Your task to perform on an android device: Open Chrome and go to the settings page Image 0: 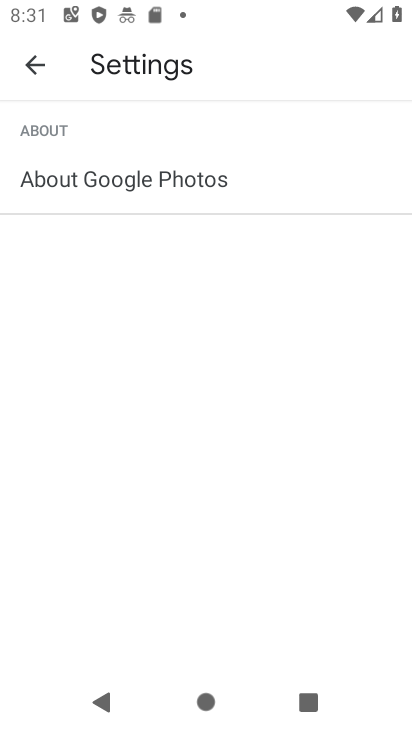
Step 0: press home button
Your task to perform on an android device: Open Chrome and go to the settings page Image 1: 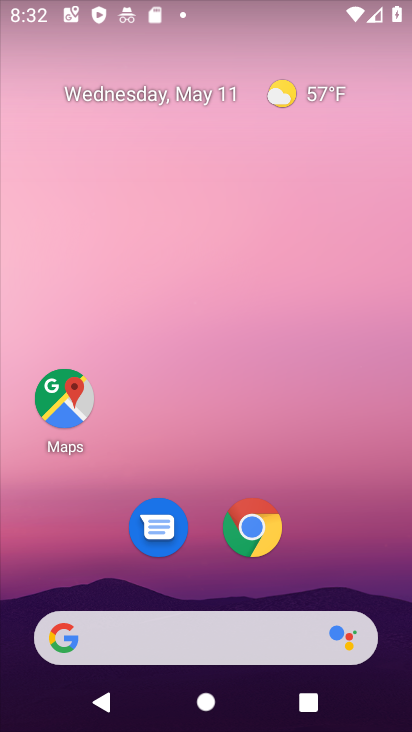
Step 1: click (251, 535)
Your task to perform on an android device: Open Chrome and go to the settings page Image 2: 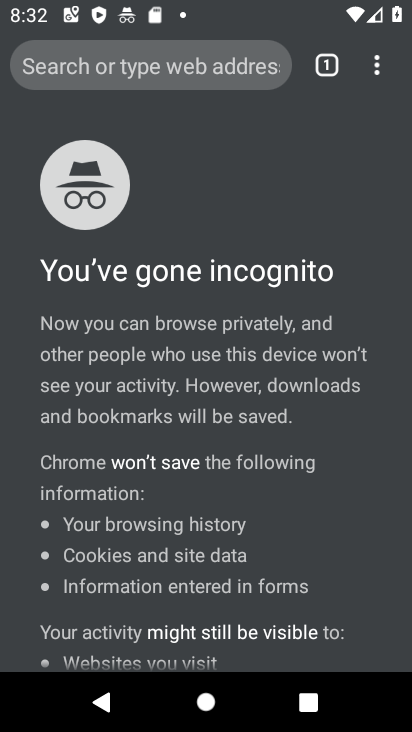
Step 2: click (376, 68)
Your task to perform on an android device: Open Chrome and go to the settings page Image 3: 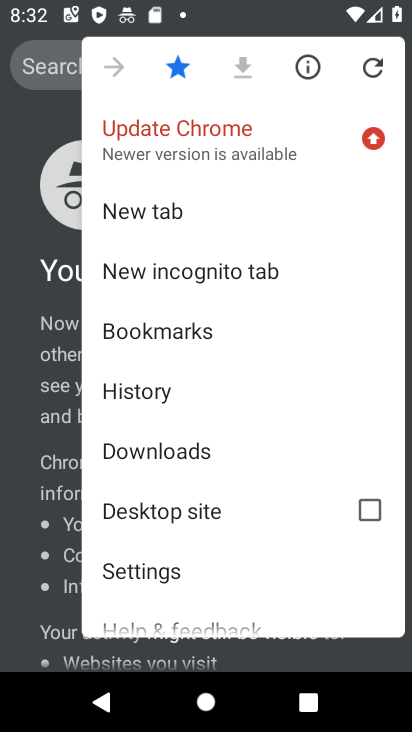
Step 3: click (179, 576)
Your task to perform on an android device: Open Chrome and go to the settings page Image 4: 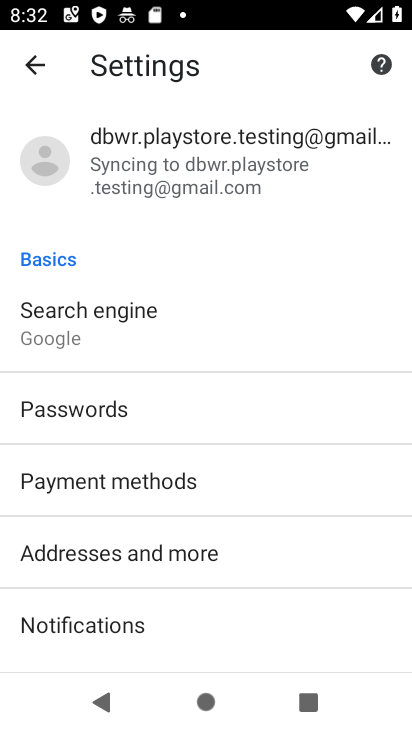
Step 4: task complete